Your task to perform on an android device: change text size in settings app Image 0: 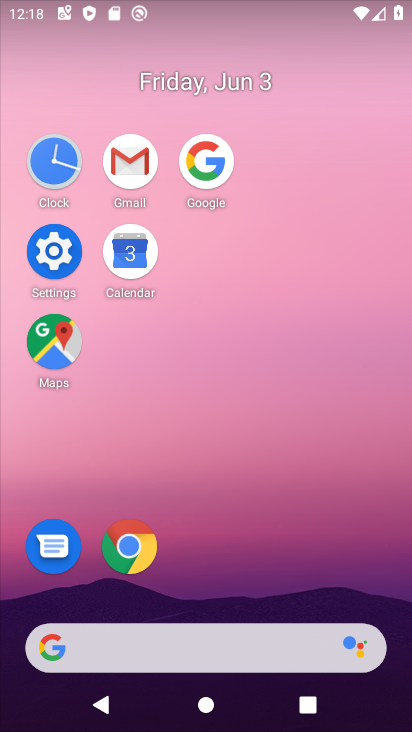
Step 0: click (57, 269)
Your task to perform on an android device: change text size in settings app Image 1: 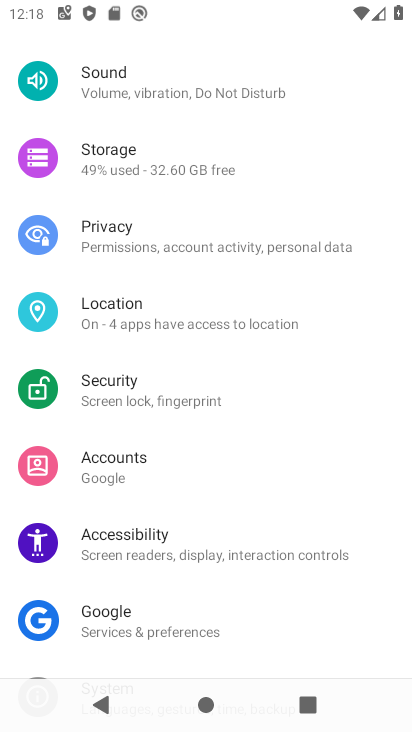
Step 1: drag from (247, 202) to (259, 619)
Your task to perform on an android device: change text size in settings app Image 2: 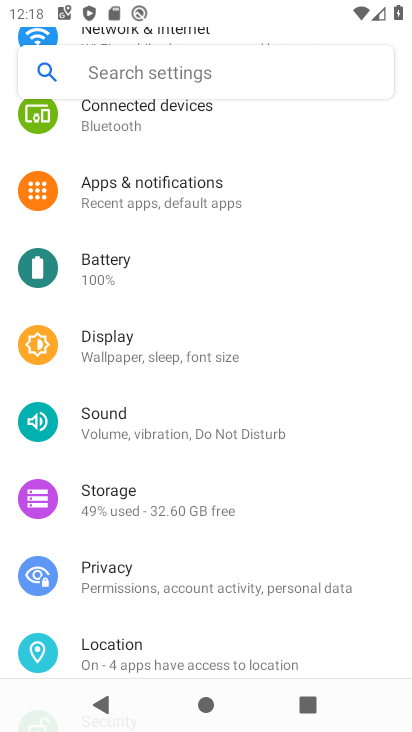
Step 2: click (249, 334)
Your task to perform on an android device: change text size in settings app Image 3: 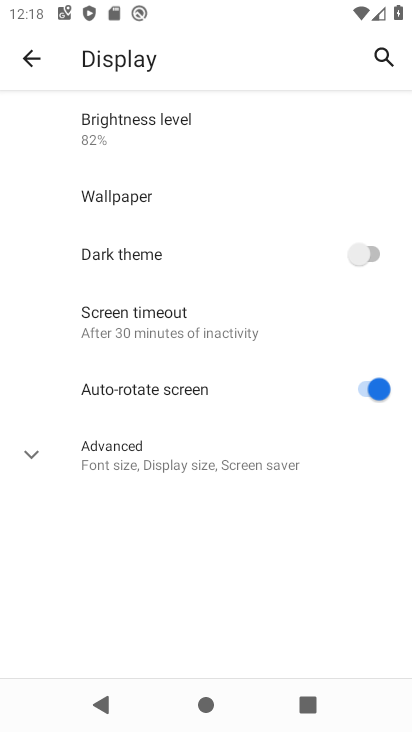
Step 3: click (24, 53)
Your task to perform on an android device: change text size in settings app Image 4: 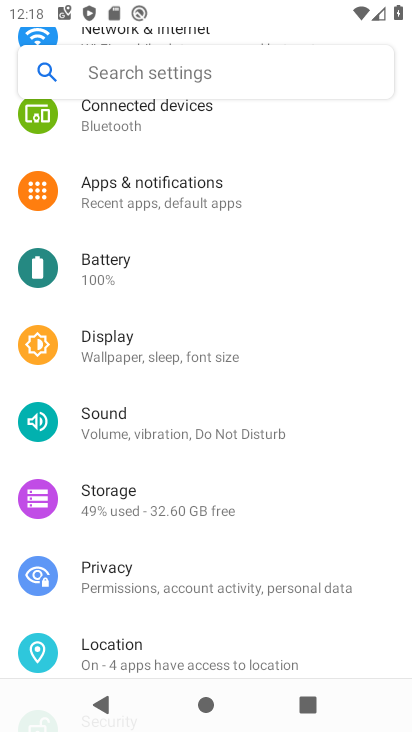
Step 4: click (158, 348)
Your task to perform on an android device: change text size in settings app Image 5: 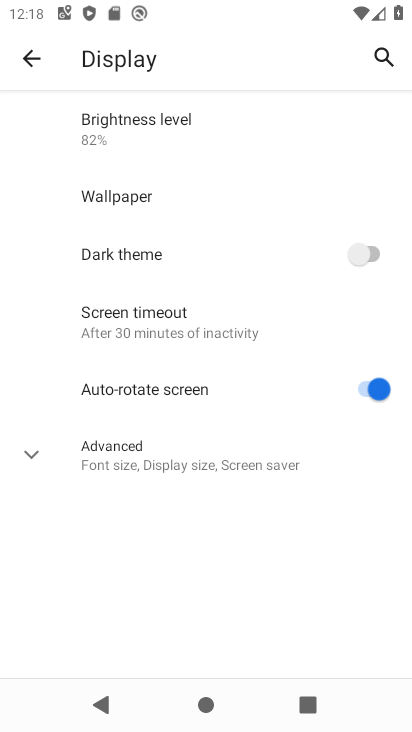
Step 5: click (167, 471)
Your task to perform on an android device: change text size in settings app Image 6: 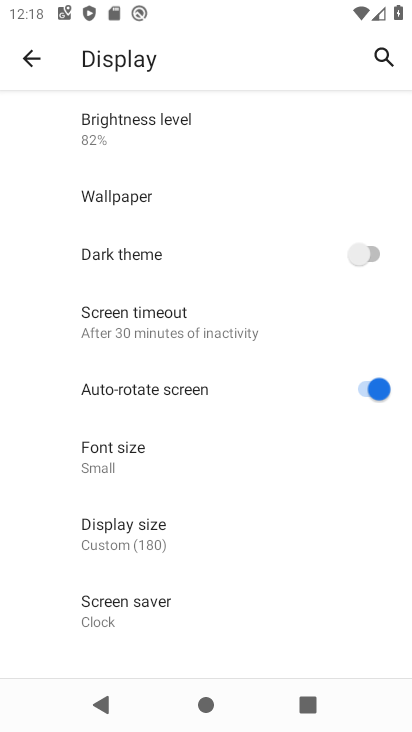
Step 6: click (164, 451)
Your task to perform on an android device: change text size in settings app Image 7: 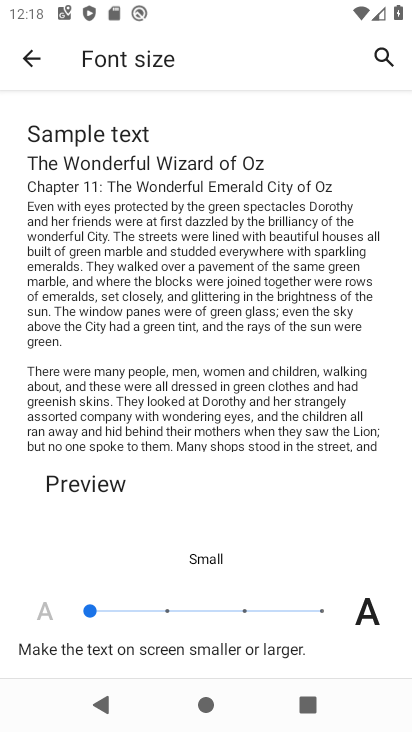
Step 7: click (115, 615)
Your task to perform on an android device: change text size in settings app Image 8: 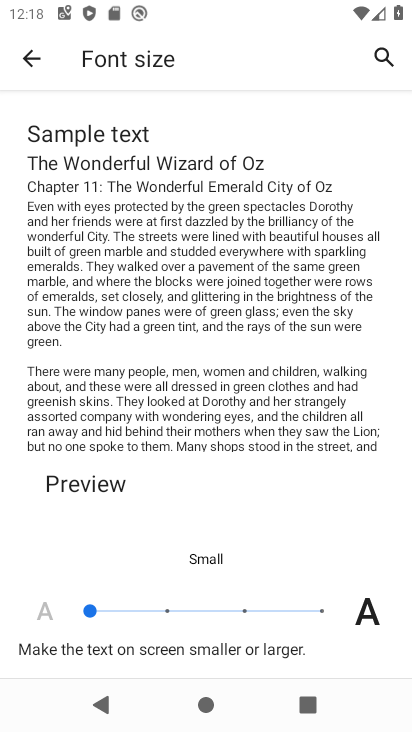
Step 8: click (120, 601)
Your task to perform on an android device: change text size in settings app Image 9: 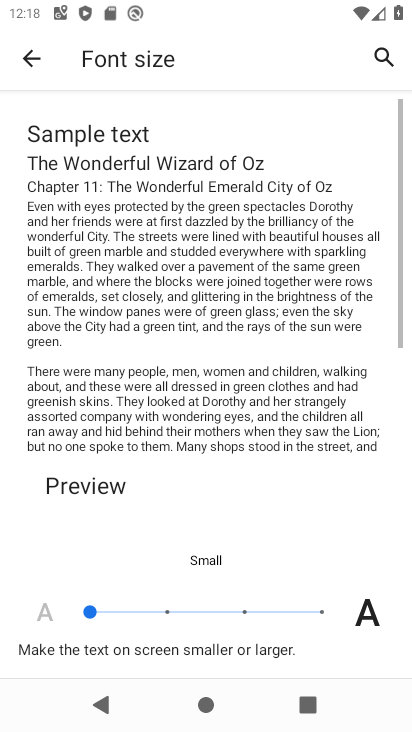
Step 9: click (157, 607)
Your task to perform on an android device: change text size in settings app Image 10: 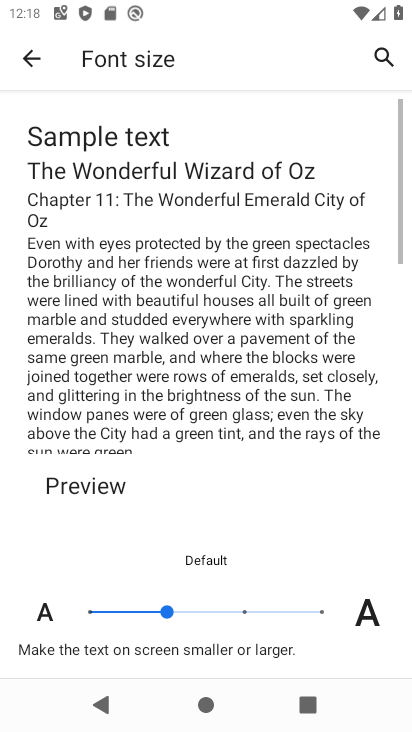
Step 10: click (174, 609)
Your task to perform on an android device: change text size in settings app Image 11: 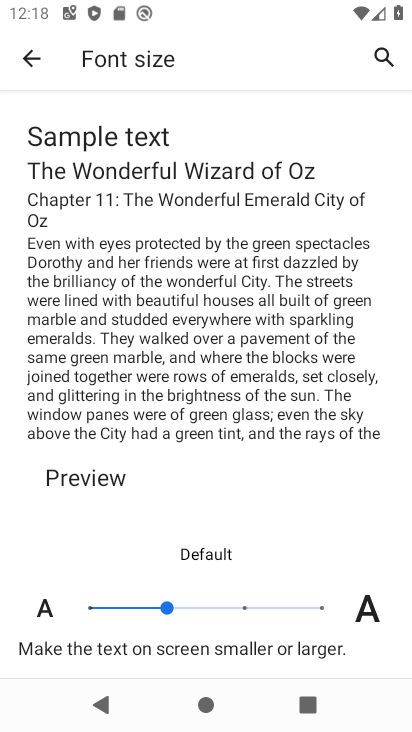
Step 11: task complete